Your task to perform on an android device: Go to Android settings Image 0: 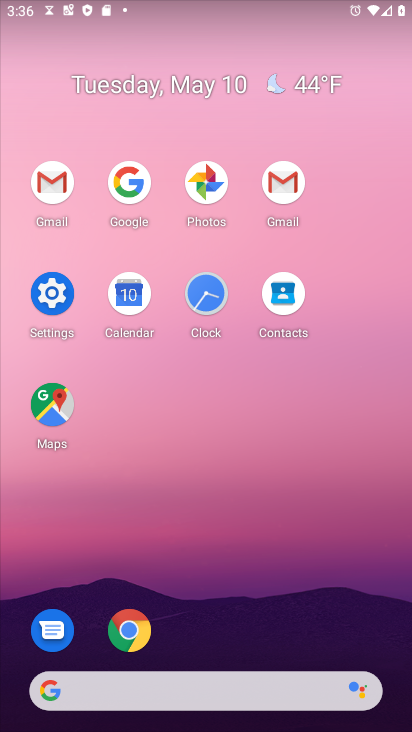
Step 0: click (62, 290)
Your task to perform on an android device: Go to Android settings Image 1: 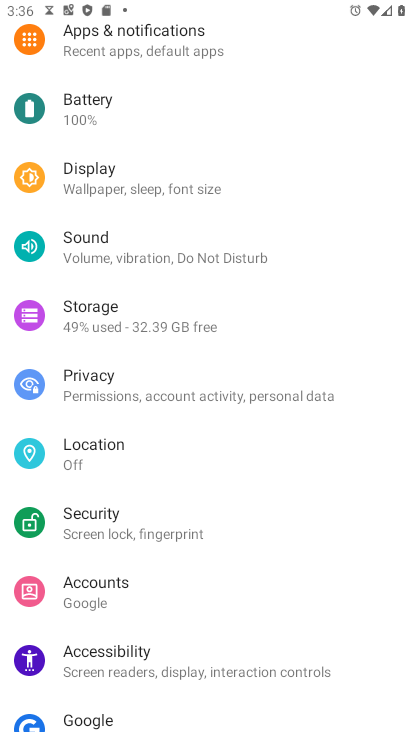
Step 1: task complete